Your task to perform on an android device: Search for vegetarian restaurants on Maps Image 0: 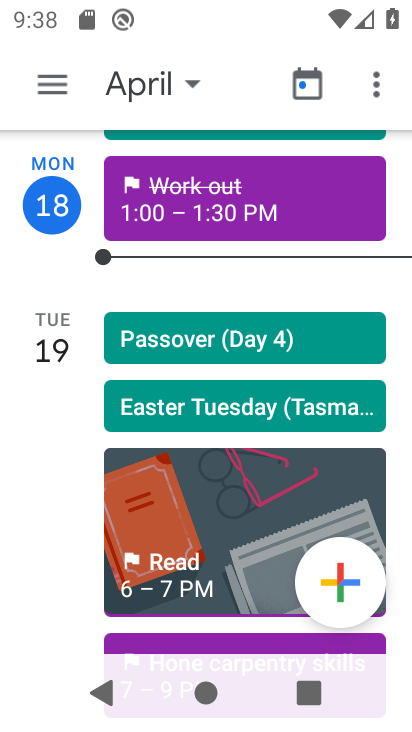
Step 0: press home button
Your task to perform on an android device: Search for vegetarian restaurants on Maps Image 1: 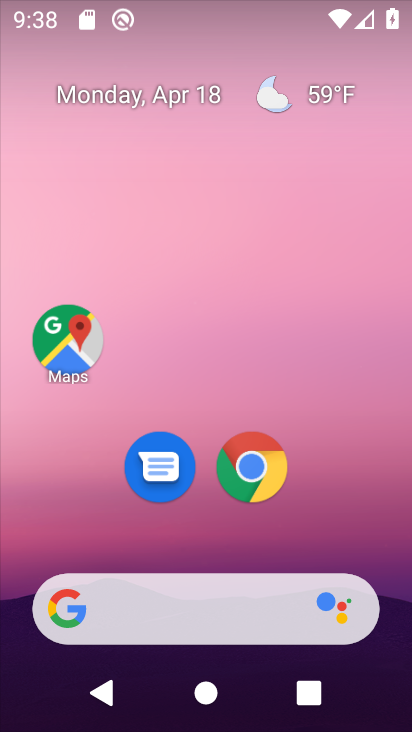
Step 1: click (67, 320)
Your task to perform on an android device: Search for vegetarian restaurants on Maps Image 2: 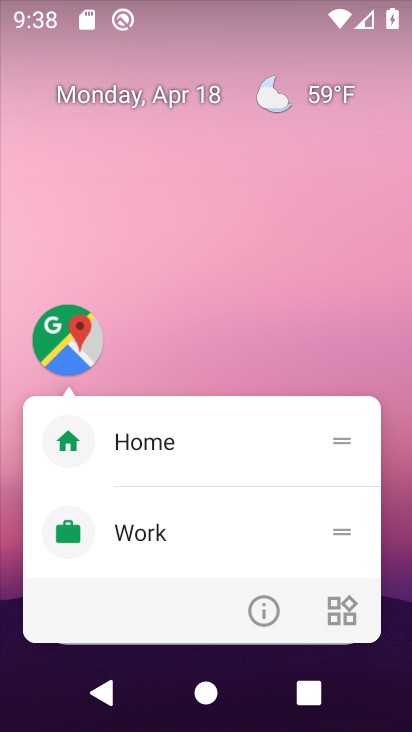
Step 2: click (54, 336)
Your task to perform on an android device: Search for vegetarian restaurants on Maps Image 3: 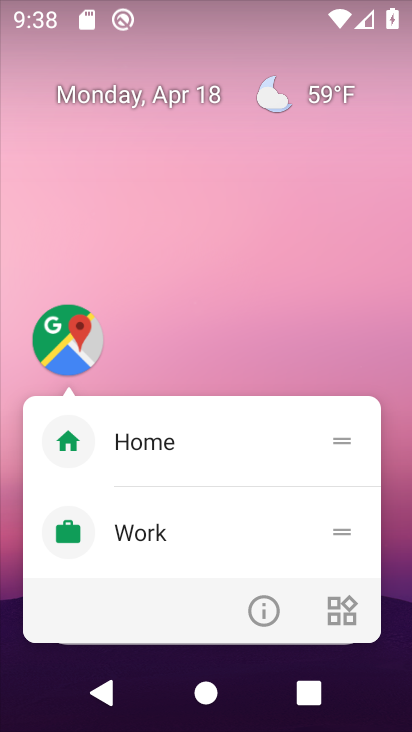
Step 3: click (55, 345)
Your task to perform on an android device: Search for vegetarian restaurants on Maps Image 4: 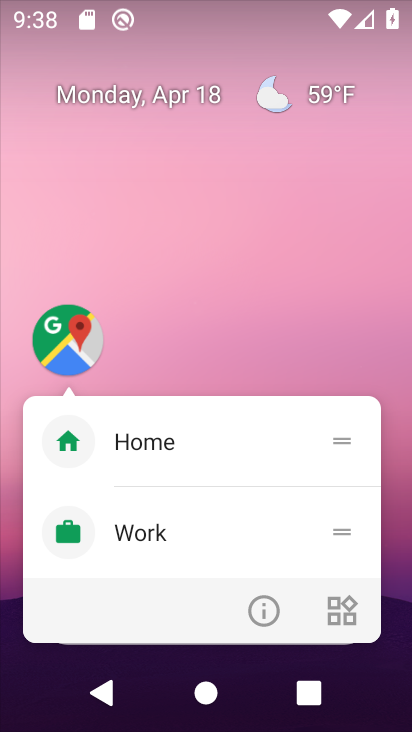
Step 4: click (72, 351)
Your task to perform on an android device: Search for vegetarian restaurants on Maps Image 5: 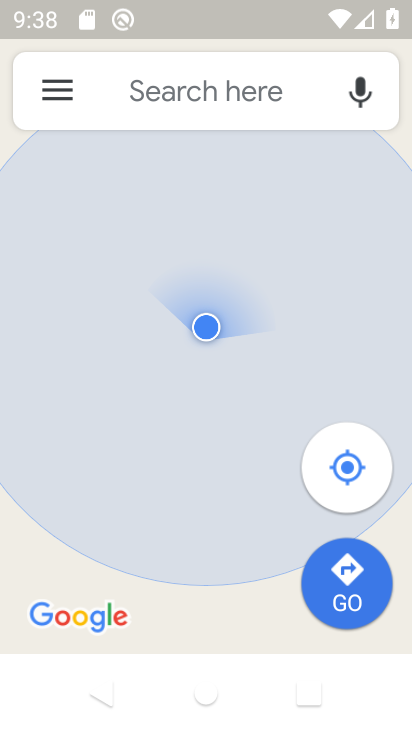
Step 5: click (160, 107)
Your task to perform on an android device: Search for vegetarian restaurants on Maps Image 6: 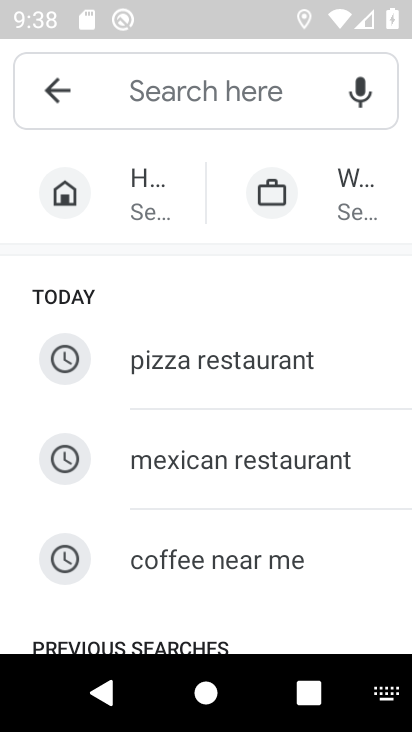
Step 6: drag from (199, 605) to (240, 133)
Your task to perform on an android device: Search for vegetarian restaurants on Maps Image 7: 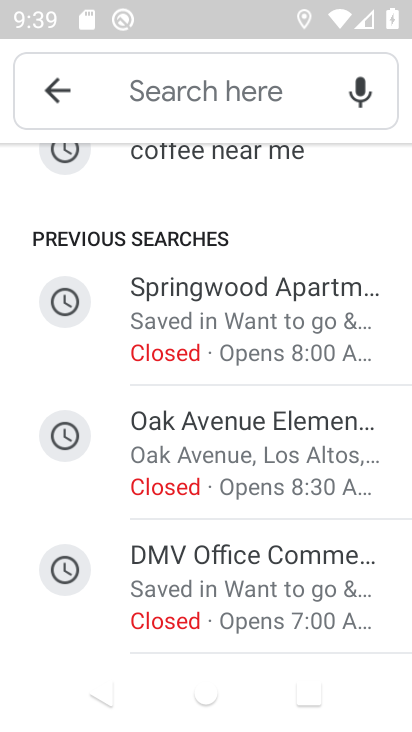
Step 7: drag from (181, 209) to (179, 662)
Your task to perform on an android device: Search for vegetarian restaurants on Maps Image 8: 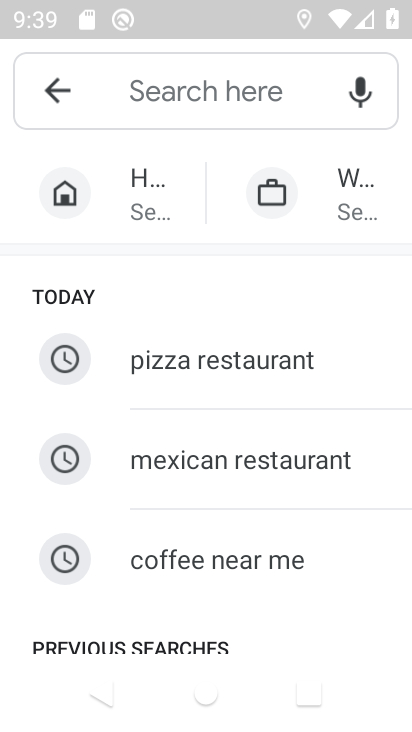
Step 8: click (161, 85)
Your task to perform on an android device: Search for vegetarian restaurants on Maps Image 9: 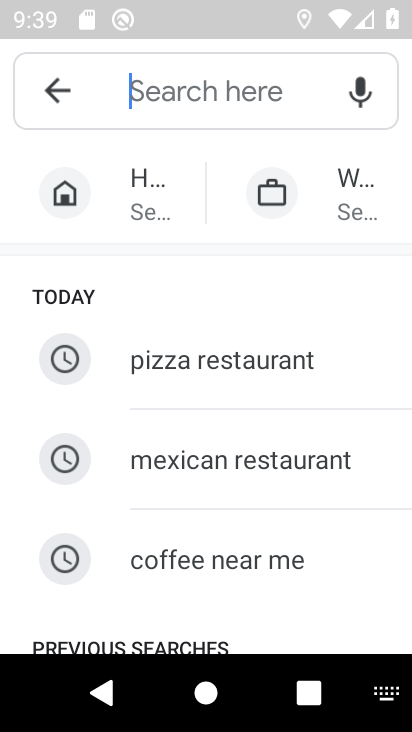
Step 9: type "vegetarian restaurant"
Your task to perform on an android device: Search for vegetarian restaurants on Maps Image 10: 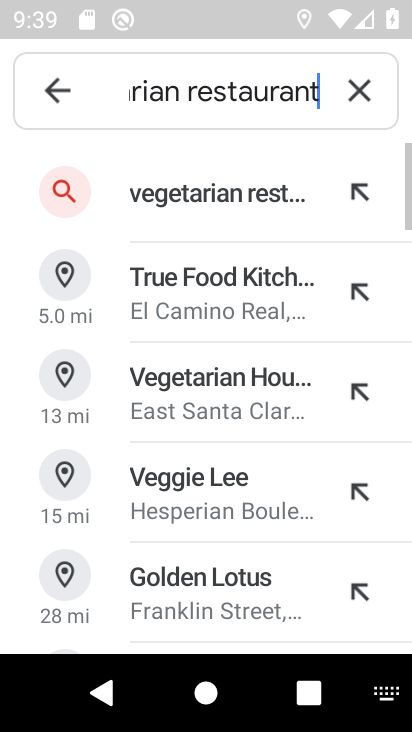
Step 10: click (212, 196)
Your task to perform on an android device: Search for vegetarian restaurants on Maps Image 11: 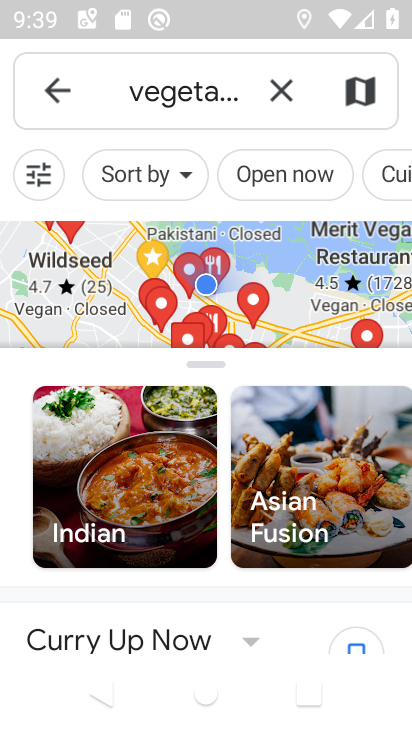
Step 11: task complete